Your task to perform on an android device: turn off airplane mode Image 0: 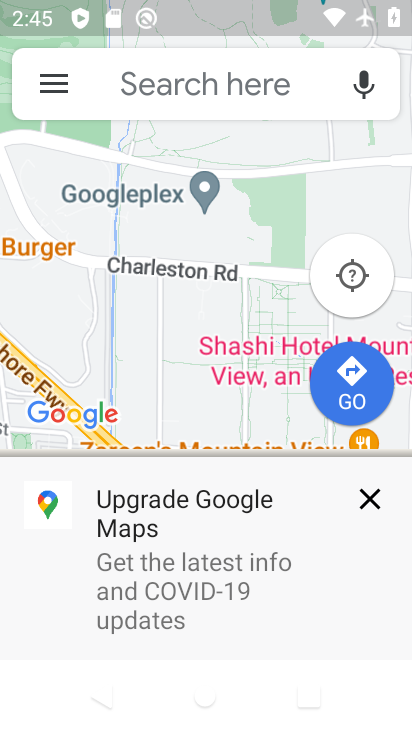
Step 0: press home button
Your task to perform on an android device: turn off airplane mode Image 1: 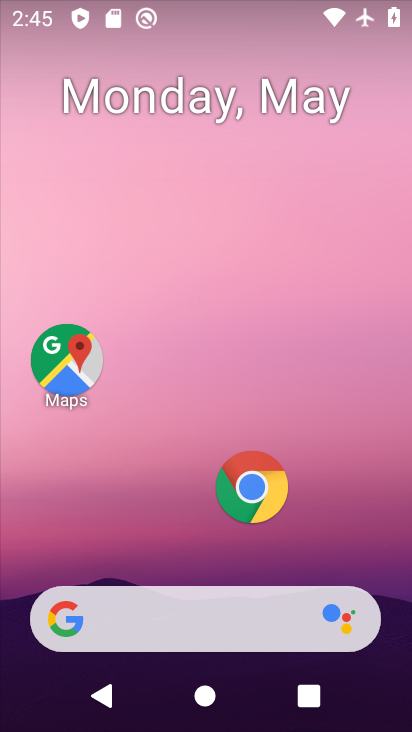
Step 1: drag from (157, 523) to (214, 151)
Your task to perform on an android device: turn off airplane mode Image 2: 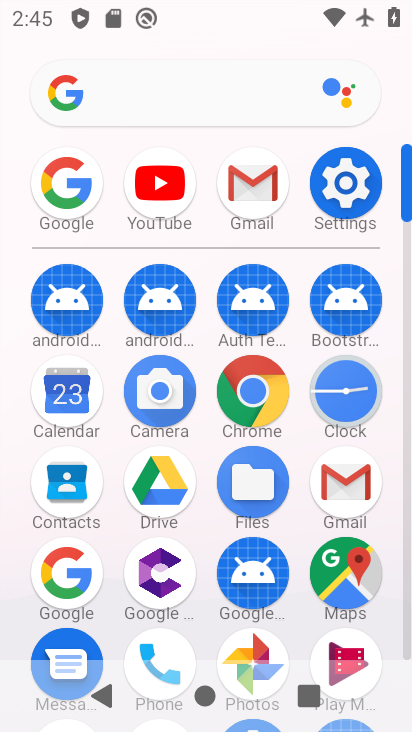
Step 2: click (352, 203)
Your task to perform on an android device: turn off airplane mode Image 3: 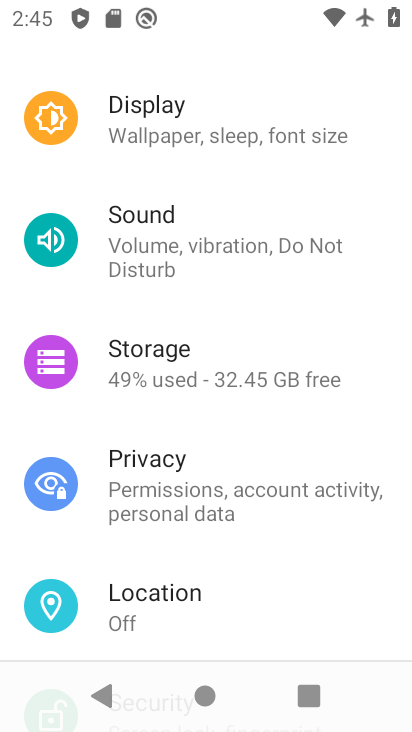
Step 3: drag from (203, 184) to (207, 535)
Your task to perform on an android device: turn off airplane mode Image 4: 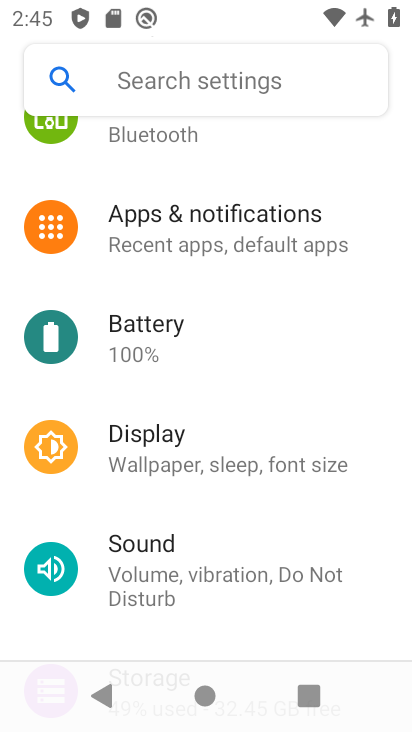
Step 4: drag from (233, 313) to (247, 557)
Your task to perform on an android device: turn off airplane mode Image 5: 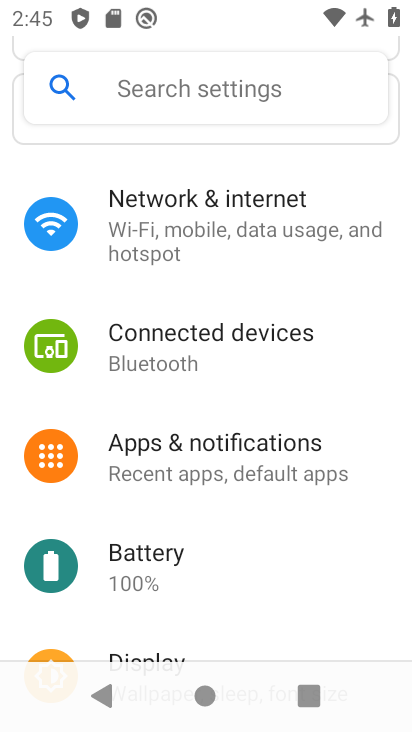
Step 5: click (235, 223)
Your task to perform on an android device: turn off airplane mode Image 6: 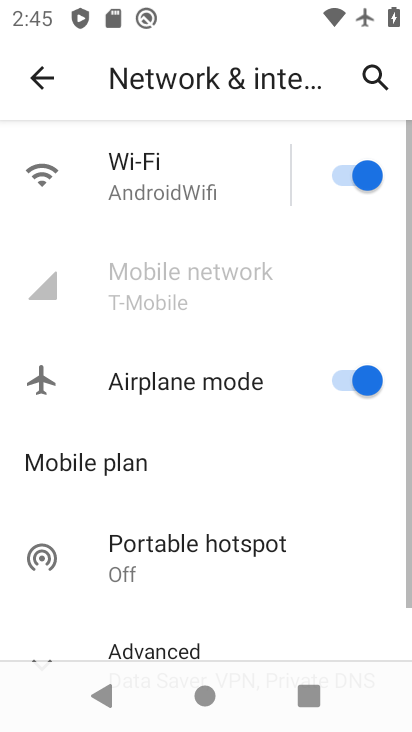
Step 6: click (363, 381)
Your task to perform on an android device: turn off airplane mode Image 7: 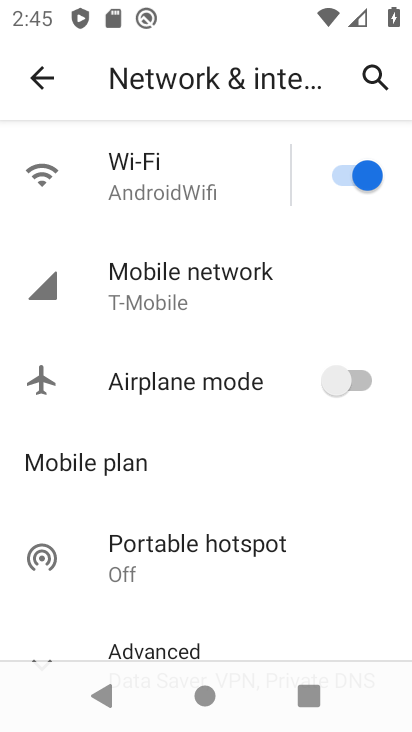
Step 7: task complete